Your task to perform on an android device: allow cookies in the chrome app Image 0: 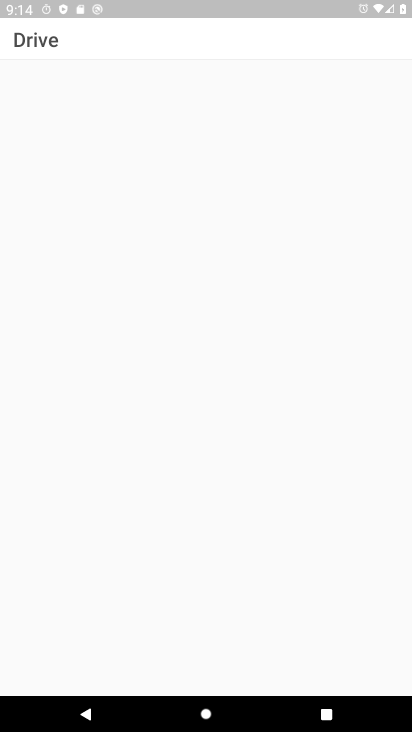
Step 0: press home button
Your task to perform on an android device: allow cookies in the chrome app Image 1: 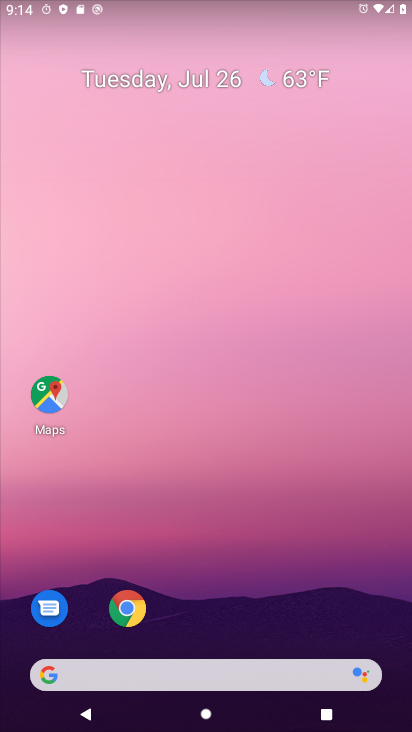
Step 1: click (135, 605)
Your task to perform on an android device: allow cookies in the chrome app Image 2: 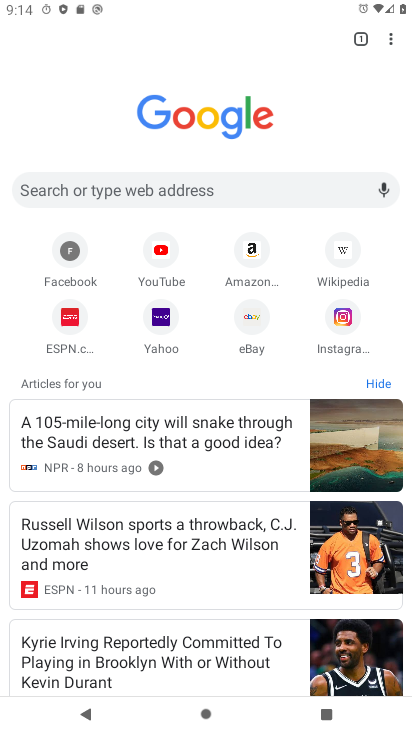
Step 2: click (395, 28)
Your task to perform on an android device: allow cookies in the chrome app Image 3: 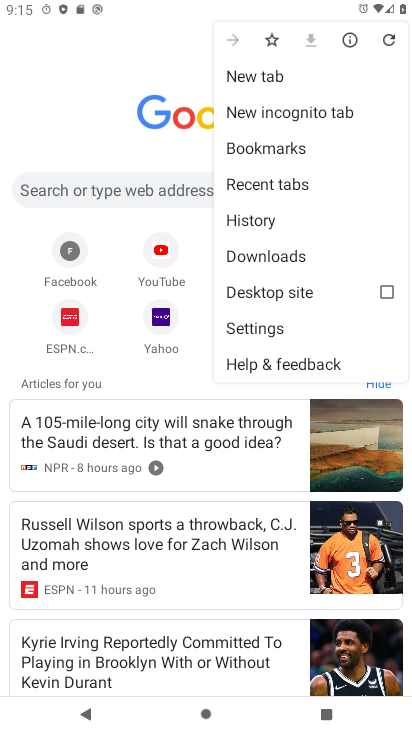
Step 3: click (282, 327)
Your task to perform on an android device: allow cookies in the chrome app Image 4: 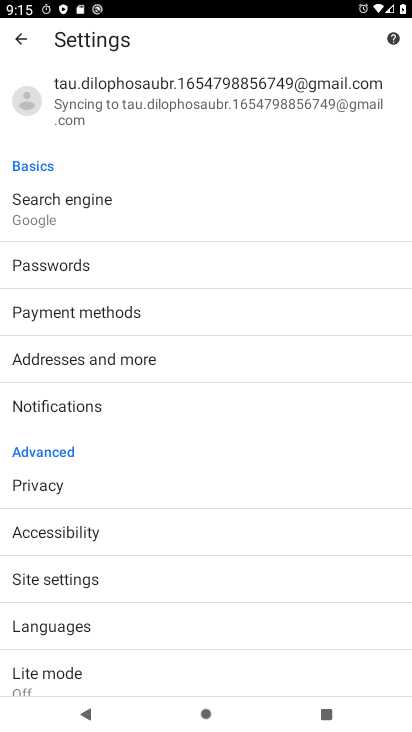
Step 4: click (59, 584)
Your task to perform on an android device: allow cookies in the chrome app Image 5: 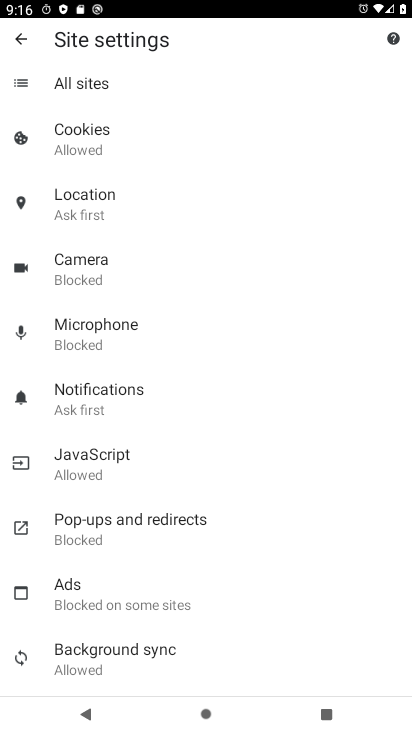
Step 5: click (148, 146)
Your task to perform on an android device: allow cookies in the chrome app Image 6: 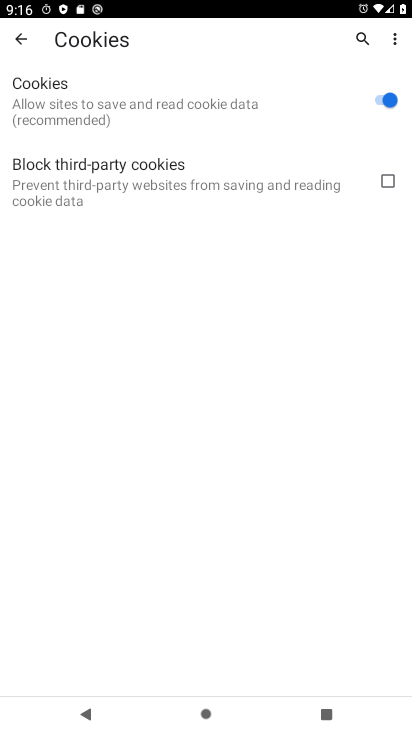
Step 6: task complete